Your task to perform on an android device: Open calendar and show me the second week of next month Image 0: 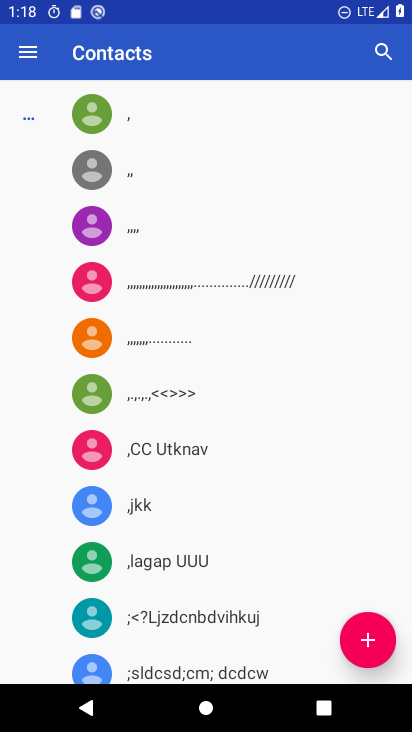
Step 0: press home button
Your task to perform on an android device: Open calendar and show me the second week of next month Image 1: 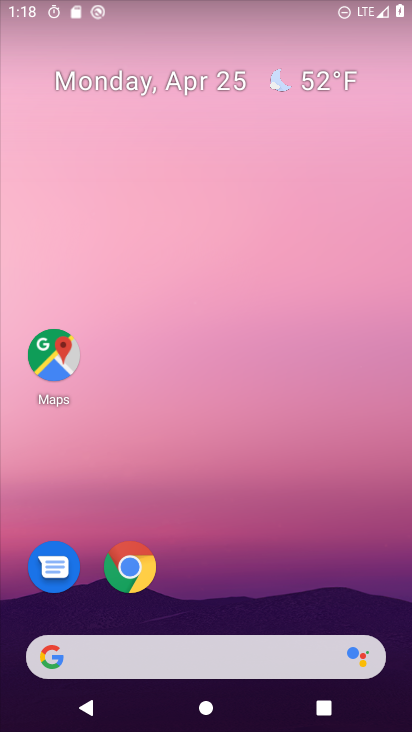
Step 1: drag from (230, 567) to (255, 0)
Your task to perform on an android device: Open calendar and show me the second week of next month Image 2: 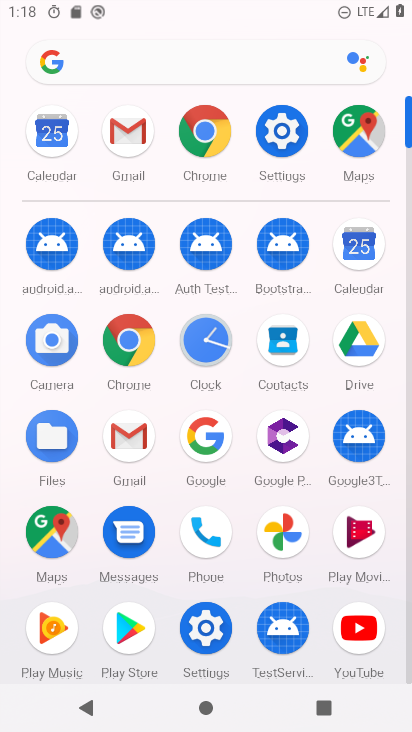
Step 2: click (47, 140)
Your task to perform on an android device: Open calendar and show me the second week of next month Image 3: 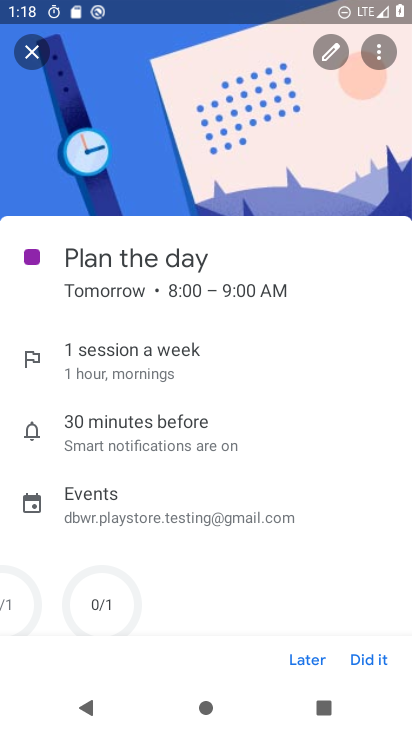
Step 3: click (32, 57)
Your task to perform on an android device: Open calendar and show me the second week of next month Image 4: 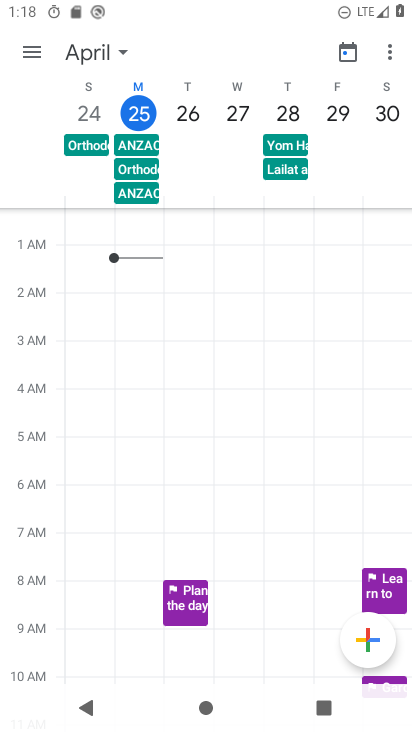
Step 4: task complete